Your task to perform on an android device: Go to network settings Image 0: 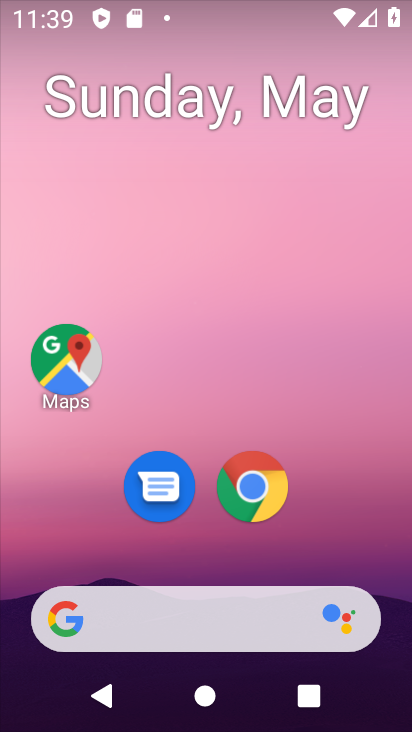
Step 0: drag from (335, 524) to (369, 80)
Your task to perform on an android device: Go to network settings Image 1: 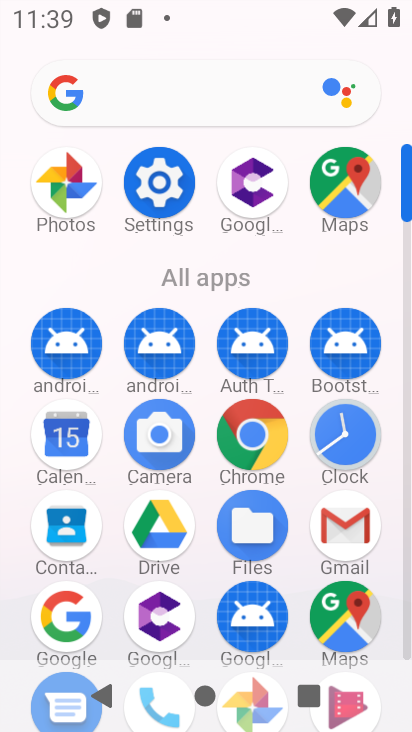
Step 1: click (143, 161)
Your task to perform on an android device: Go to network settings Image 2: 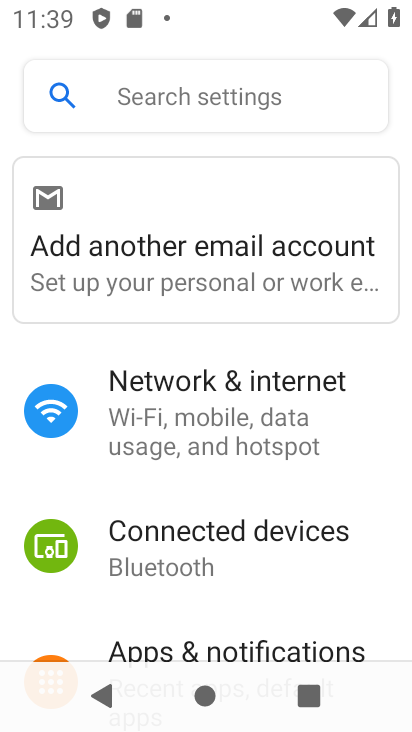
Step 2: click (252, 410)
Your task to perform on an android device: Go to network settings Image 3: 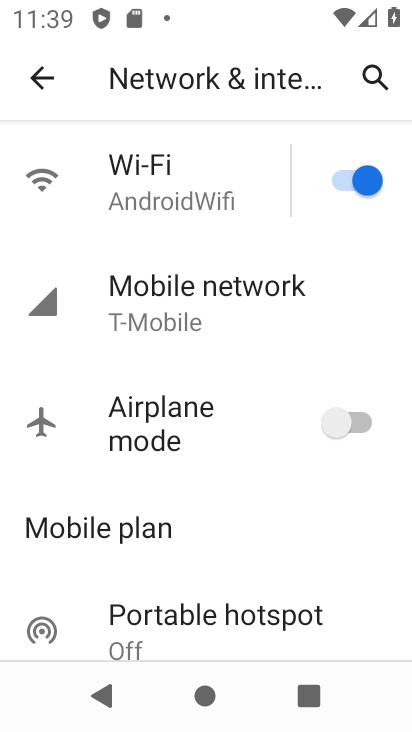
Step 3: task complete